Your task to perform on an android device: turn off location history Image 0: 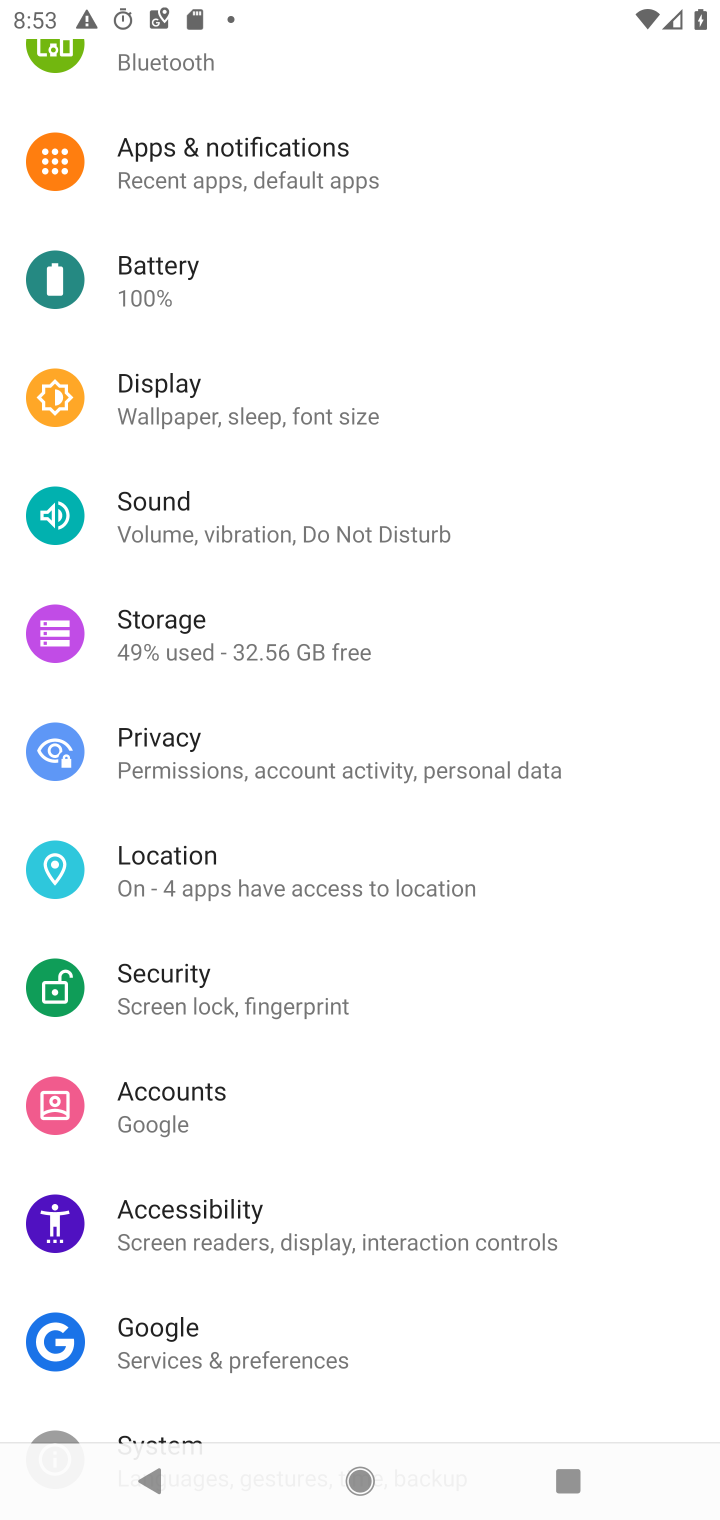
Step 0: click (315, 847)
Your task to perform on an android device: turn off location history Image 1: 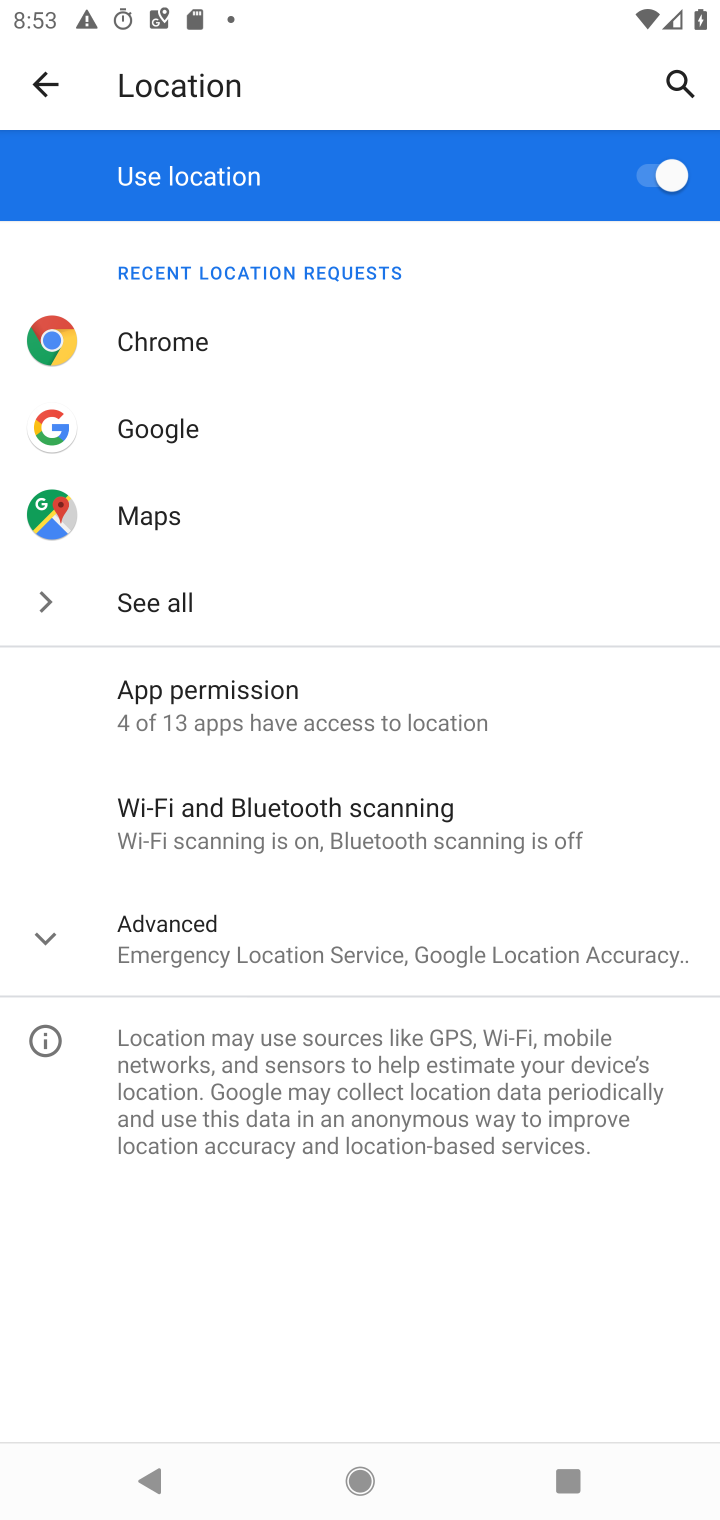
Step 1: click (224, 925)
Your task to perform on an android device: turn off location history Image 2: 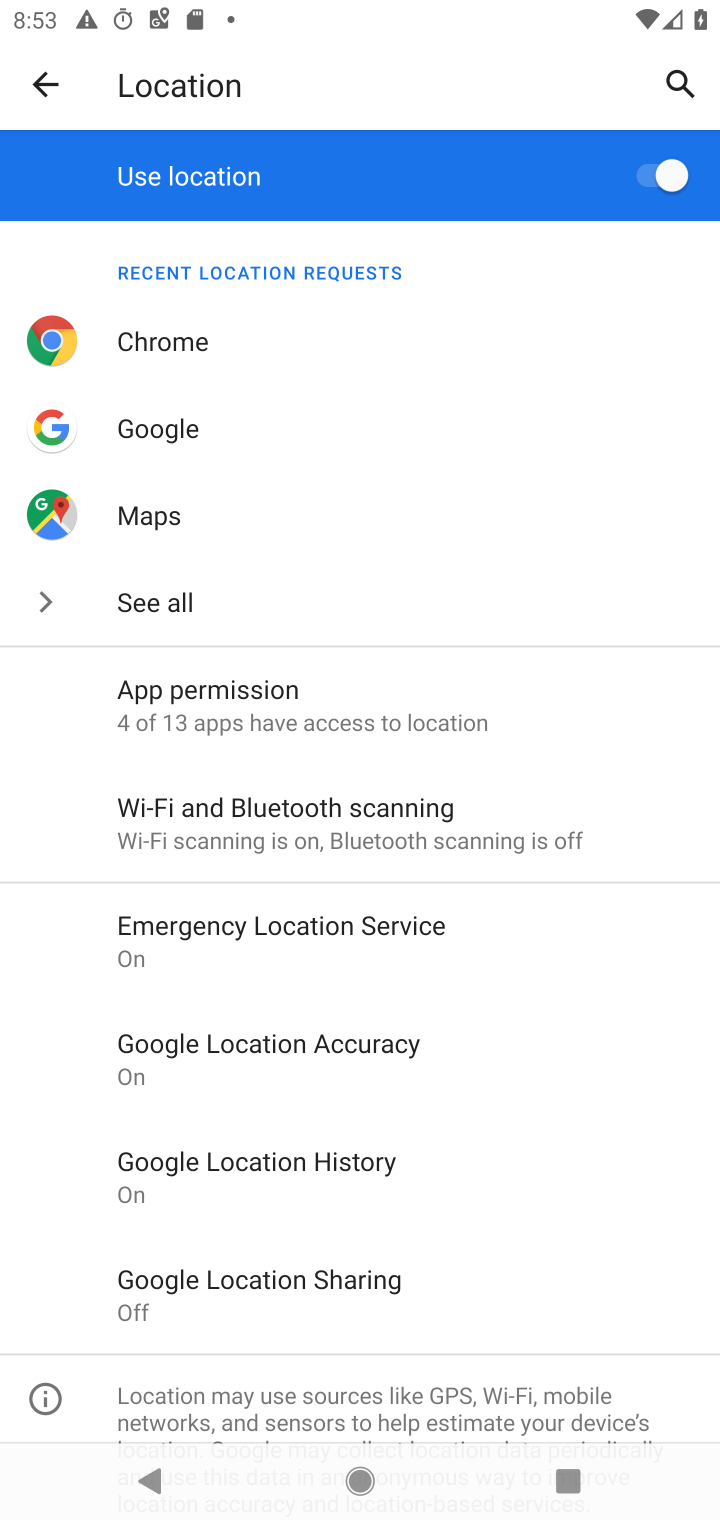
Step 2: click (305, 1171)
Your task to perform on an android device: turn off location history Image 3: 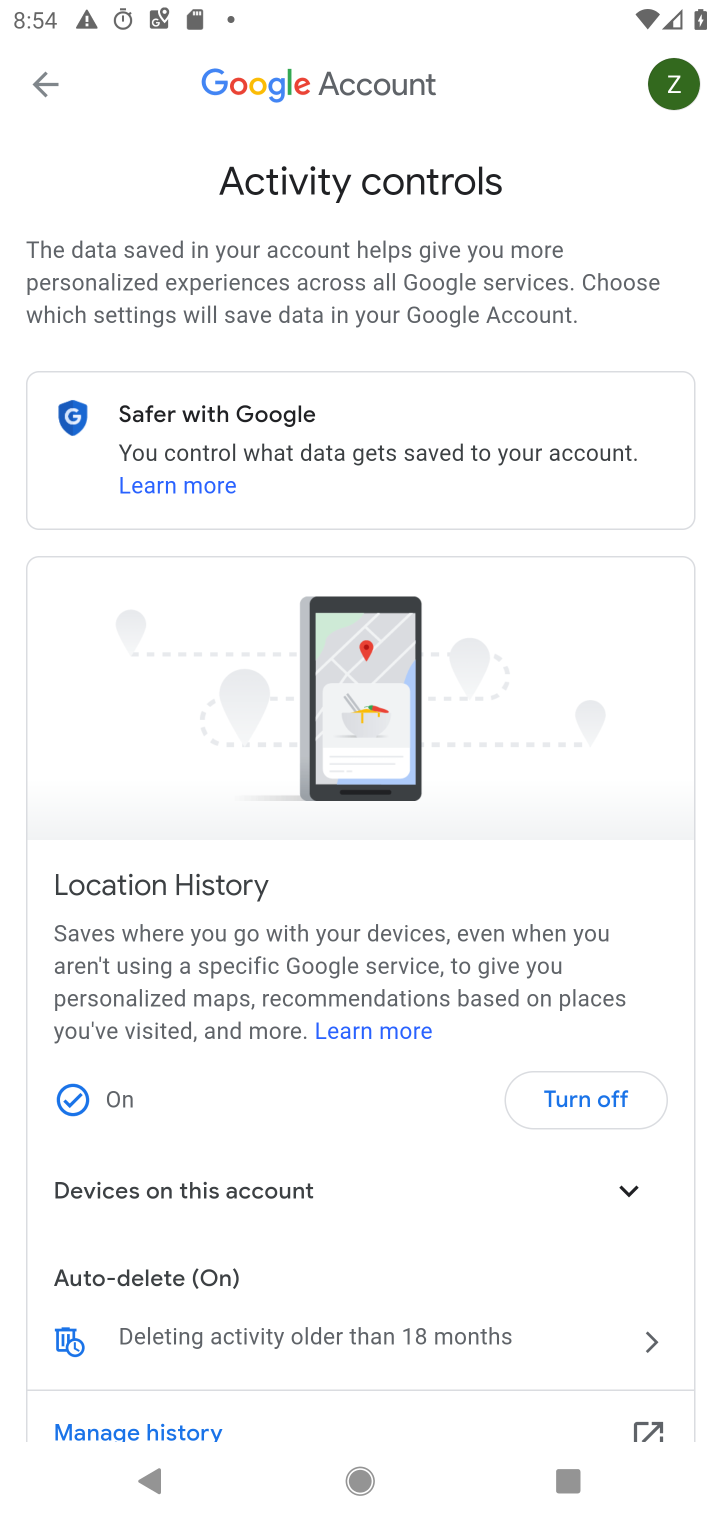
Step 3: click (578, 1130)
Your task to perform on an android device: turn off location history Image 4: 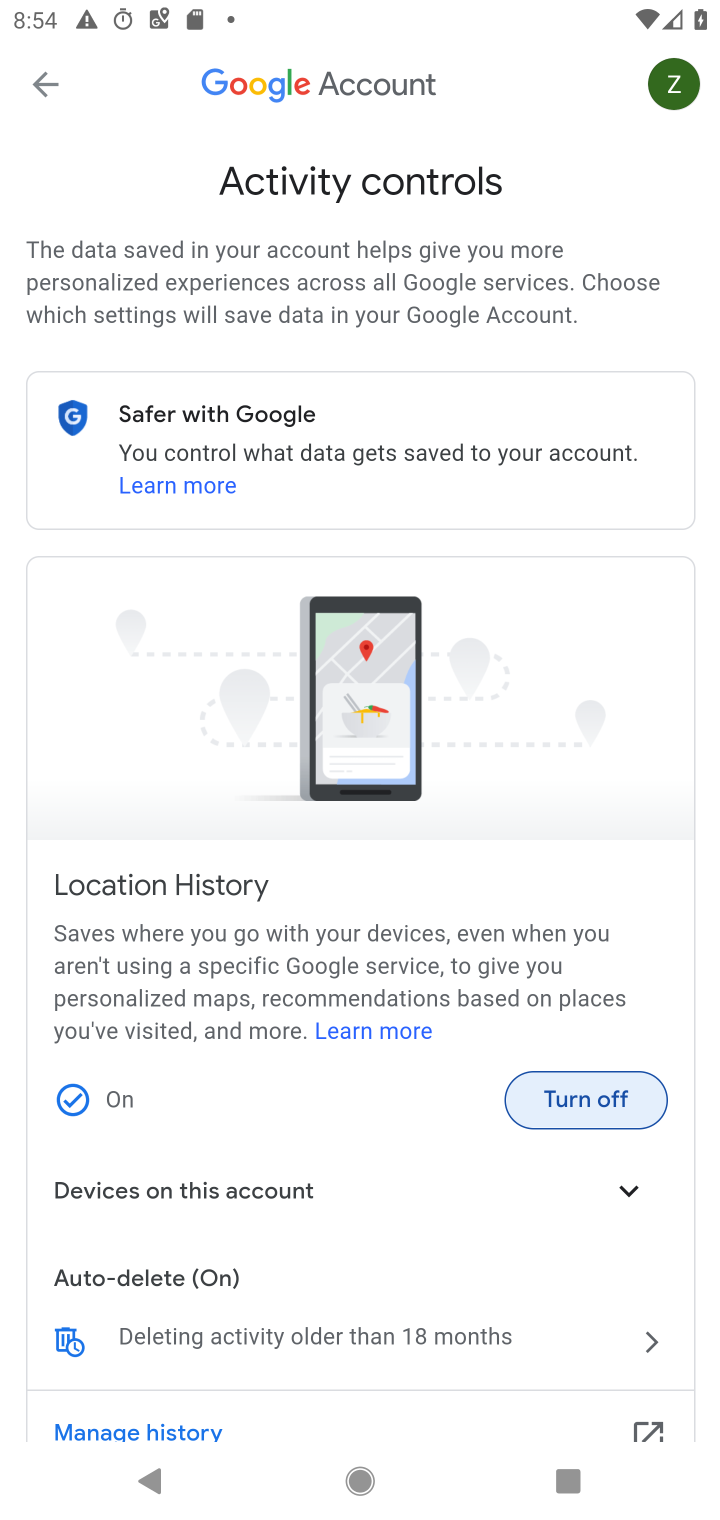
Step 4: click (610, 1105)
Your task to perform on an android device: turn off location history Image 5: 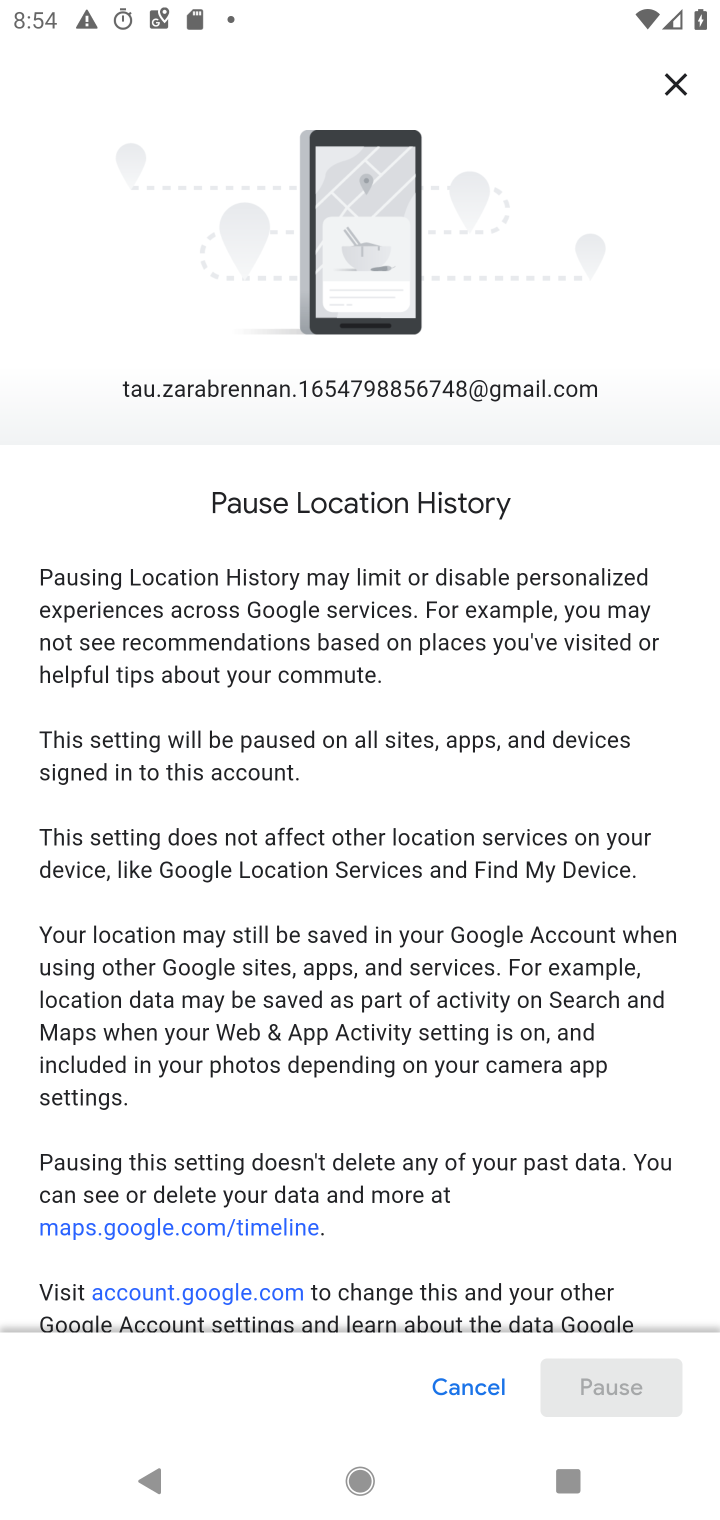
Step 5: drag from (386, 1051) to (457, 9)
Your task to perform on an android device: turn off location history Image 6: 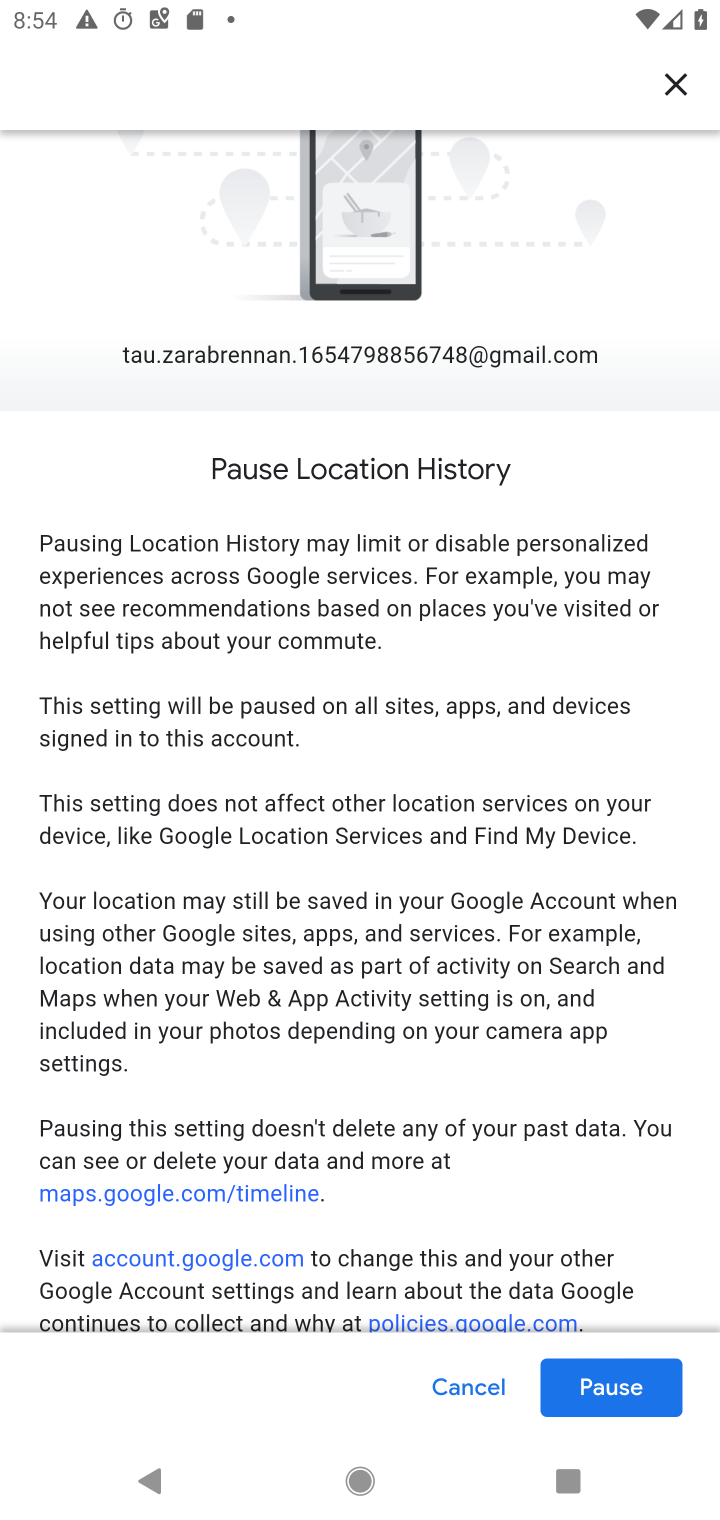
Step 6: click (610, 1392)
Your task to perform on an android device: turn off location history Image 7: 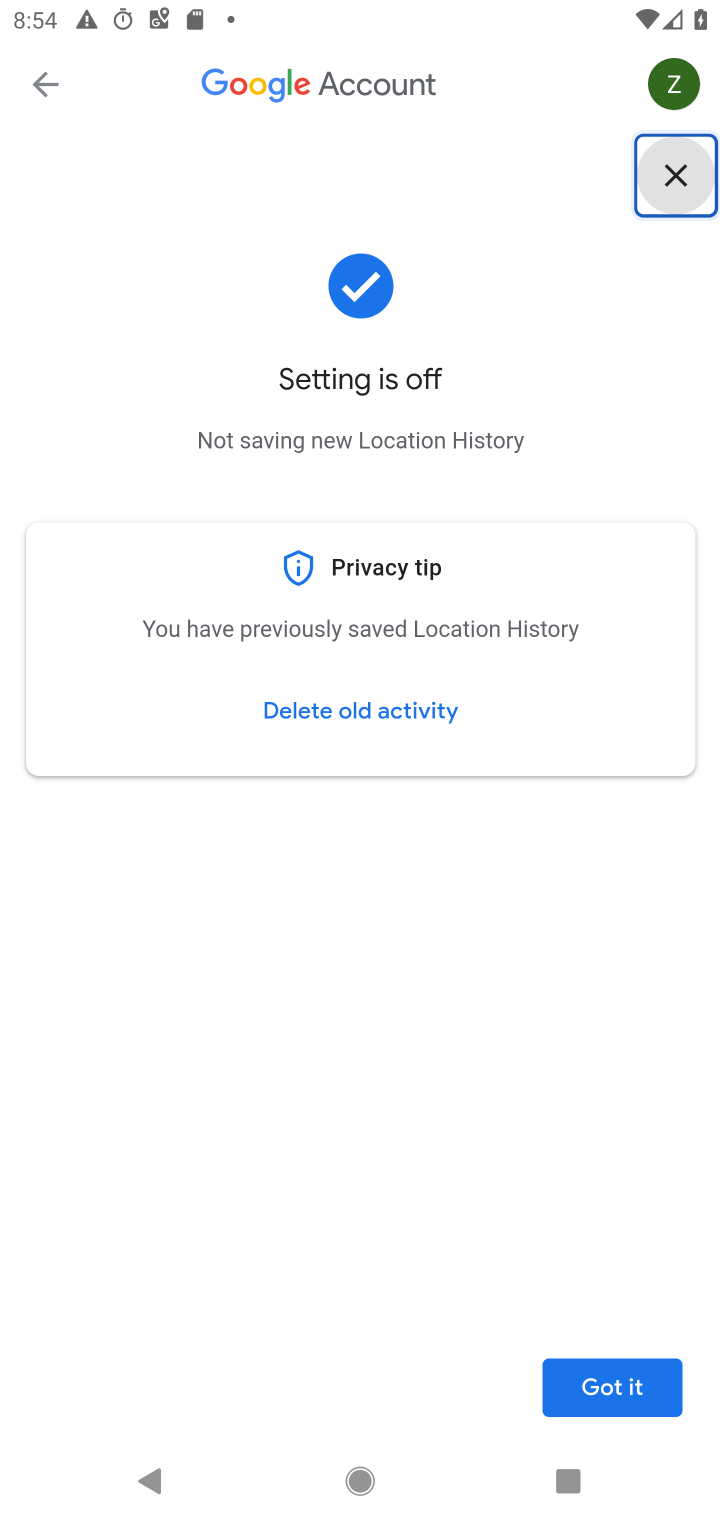
Step 7: task complete